Your task to perform on an android device: toggle javascript in the chrome app Image 0: 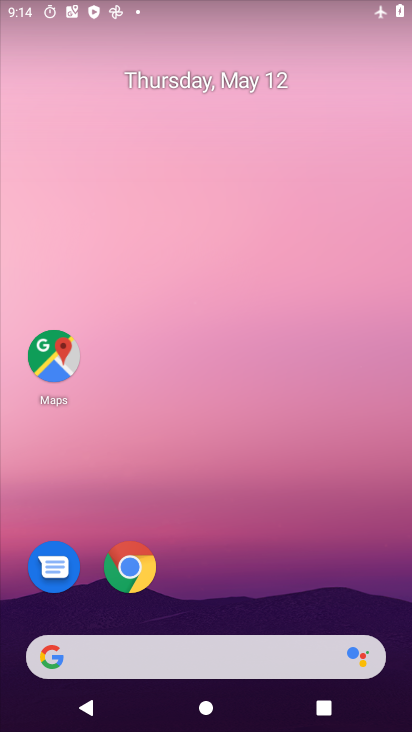
Step 0: drag from (265, 540) to (236, 170)
Your task to perform on an android device: toggle javascript in the chrome app Image 1: 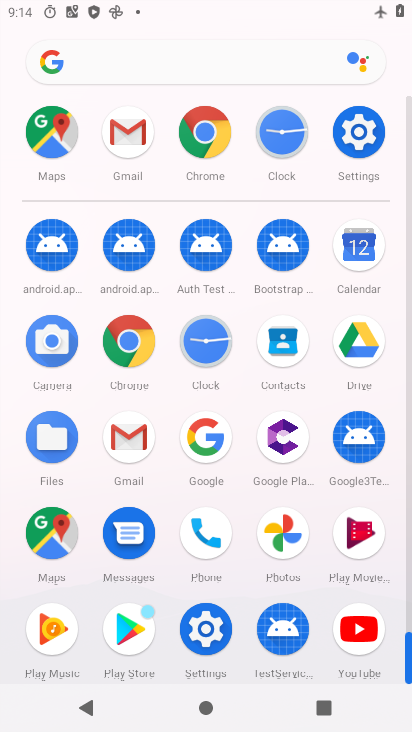
Step 1: click (215, 167)
Your task to perform on an android device: toggle javascript in the chrome app Image 2: 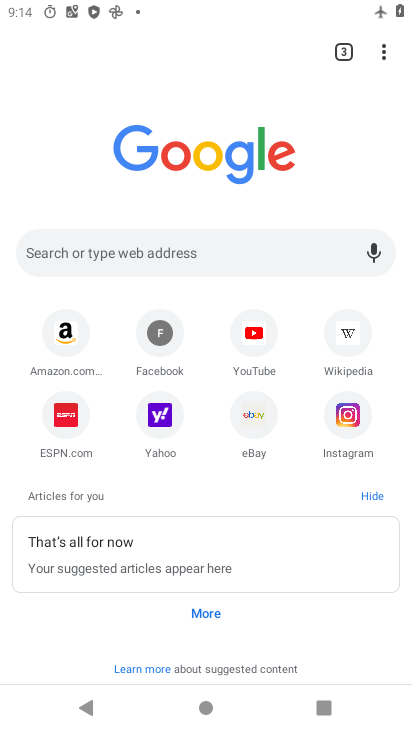
Step 2: click (387, 60)
Your task to perform on an android device: toggle javascript in the chrome app Image 3: 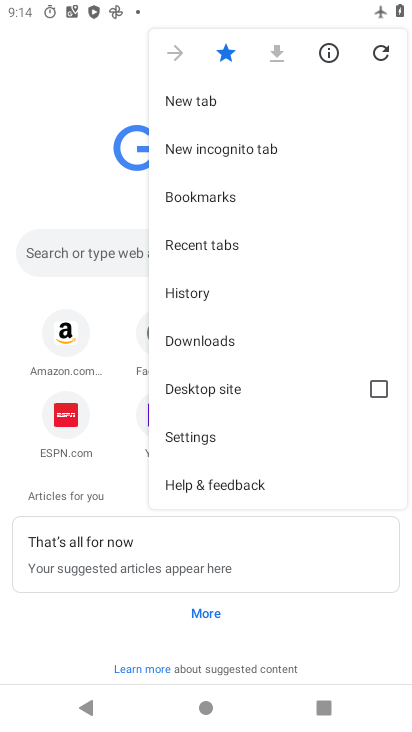
Step 3: click (236, 438)
Your task to perform on an android device: toggle javascript in the chrome app Image 4: 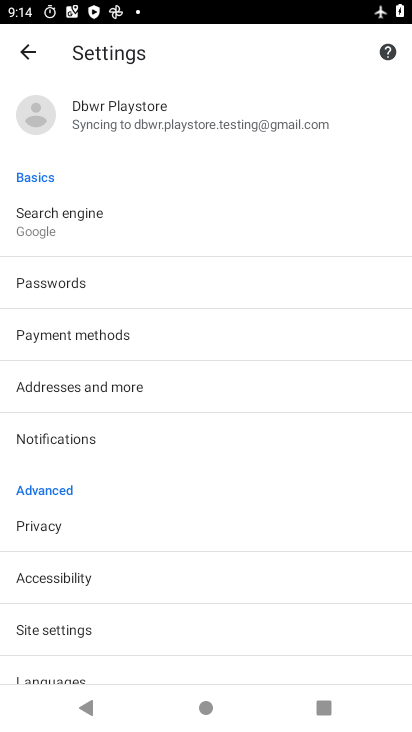
Step 4: drag from (180, 502) to (179, 360)
Your task to perform on an android device: toggle javascript in the chrome app Image 5: 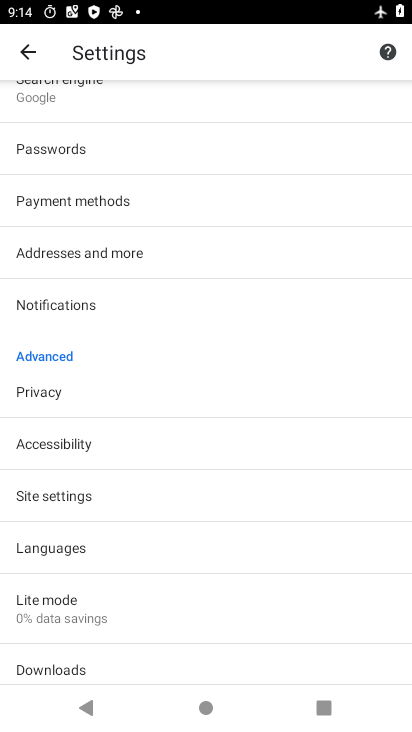
Step 5: click (110, 499)
Your task to perform on an android device: toggle javascript in the chrome app Image 6: 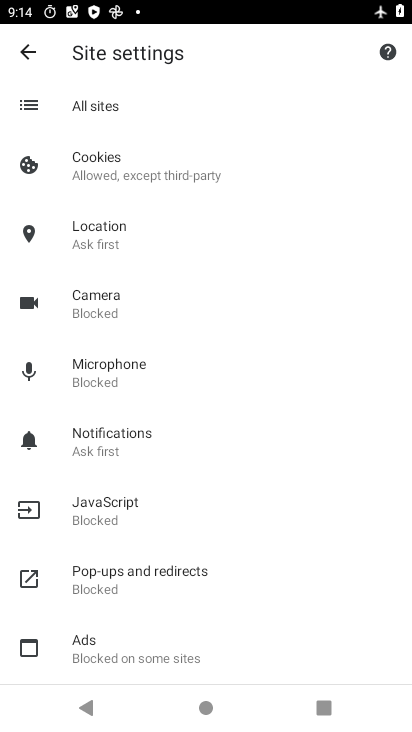
Step 6: click (119, 513)
Your task to perform on an android device: toggle javascript in the chrome app Image 7: 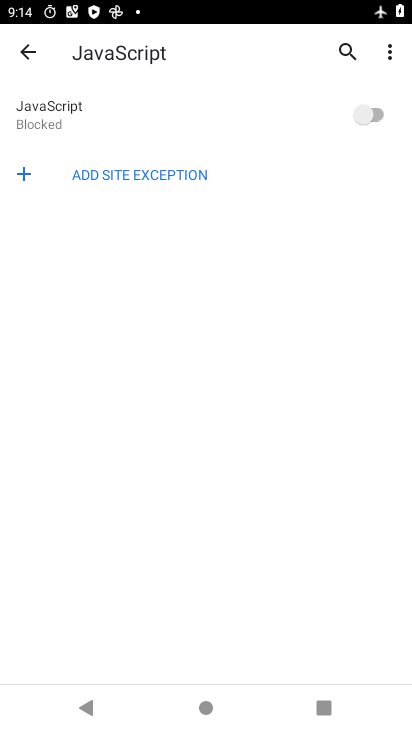
Step 7: click (380, 122)
Your task to perform on an android device: toggle javascript in the chrome app Image 8: 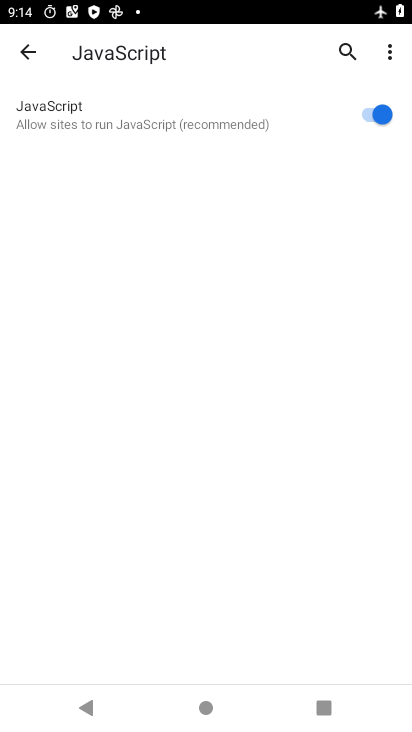
Step 8: task complete